Your task to perform on an android device: open a new tab in the chrome app Image 0: 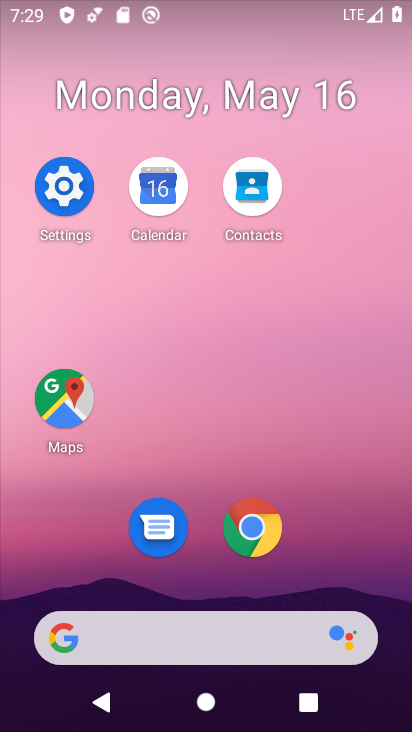
Step 0: click (241, 549)
Your task to perform on an android device: open a new tab in the chrome app Image 1: 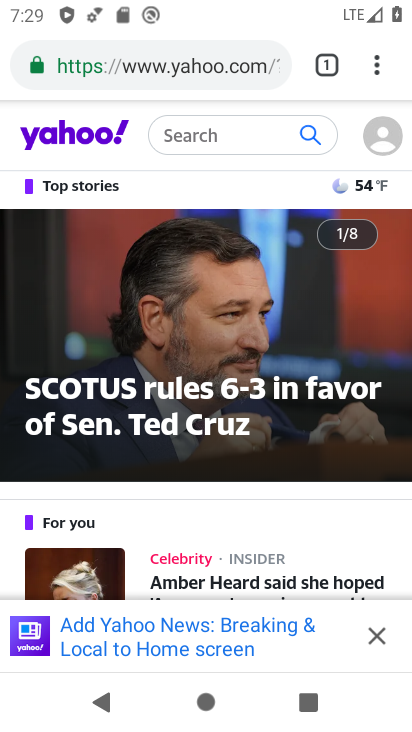
Step 1: click (323, 65)
Your task to perform on an android device: open a new tab in the chrome app Image 2: 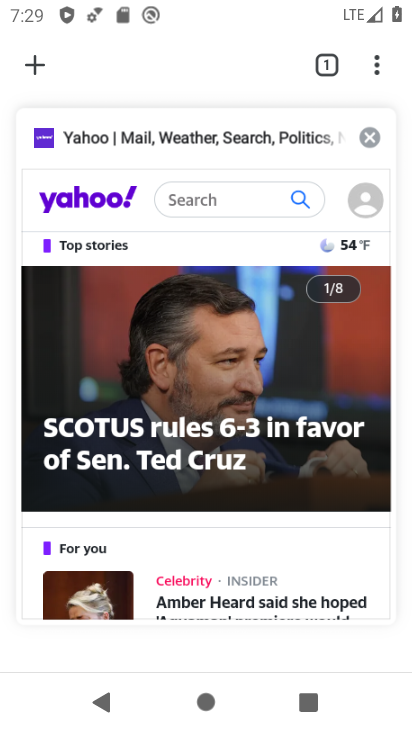
Step 2: click (48, 61)
Your task to perform on an android device: open a new tab in the chrome app Image 3: 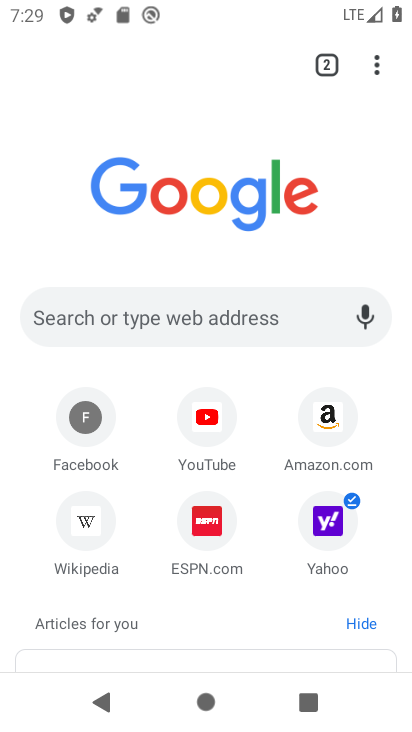
Step 3: task complete